Your task to perform on an android device: delete a single message in the gmail app Image 0: 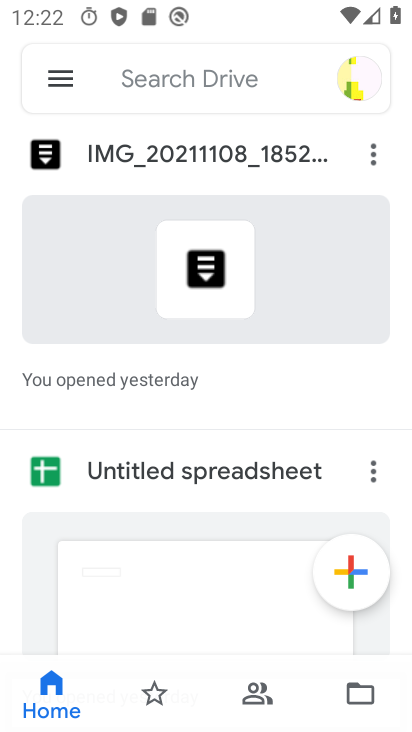
Step 0: press home button
Your task to perform on an android device: delete a single message in the gmail app Image 1: 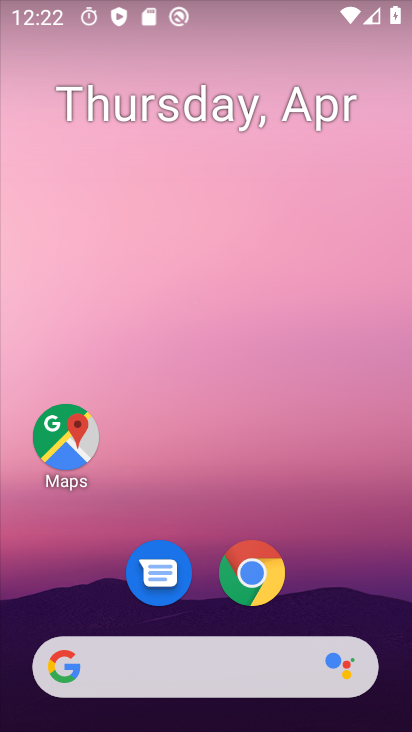
Step 1: drag from (366, 351) to (354, 234)
Your task to perform on an android device: delete a single message in the gmail app Image 2: 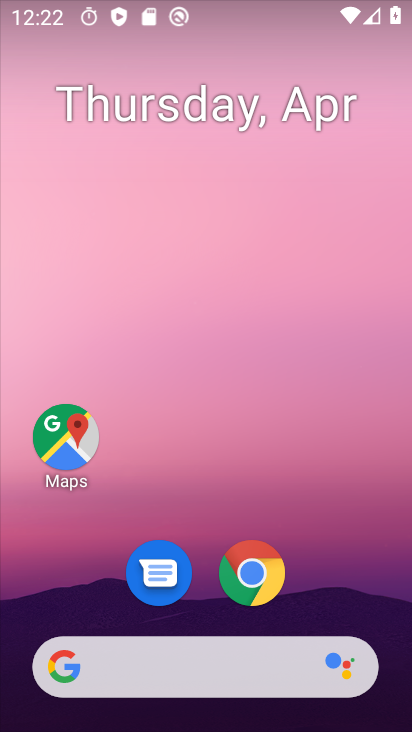
Step 2: click (365, 173)
Your task to perform on an android device: delete a single message in the gmail app Image 3: 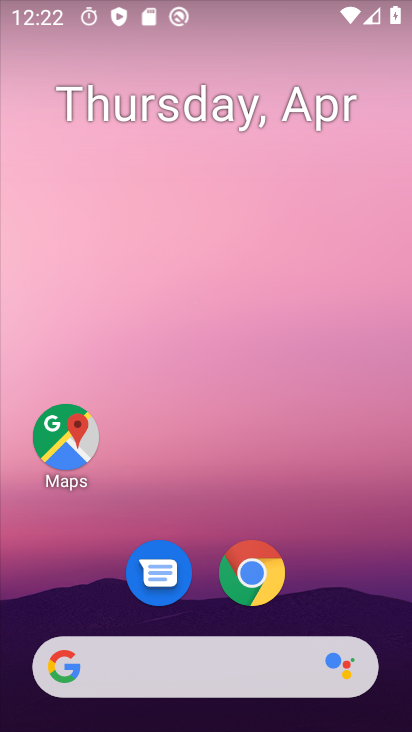
Step 3: drag from (368, 281) to (362, 143)
Your task to perform on an android device: delete a single message in the gmail app Image 4: 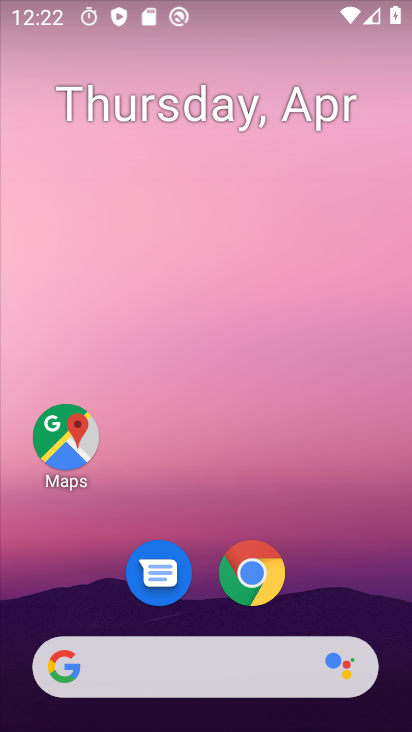
Step 4: drag from (368, 236) to (370, 165)
Your task to perform on an android device: delete a single message in the gmail app Image 5: 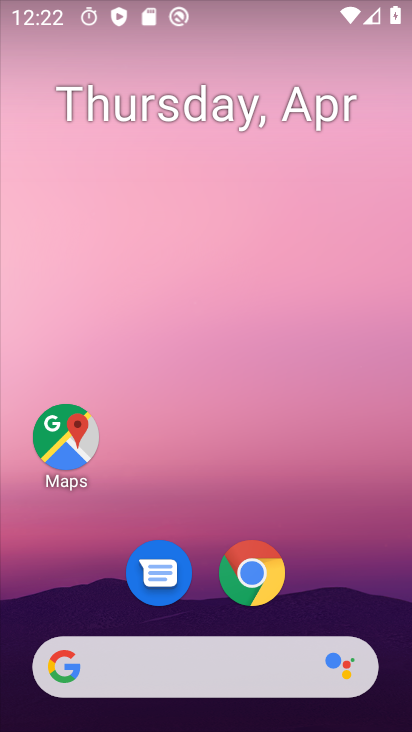
Step 5: drag from (373, 496) to (360, 151)
Your task to perform on an android device: delete a single message in the gmail app Image 6: 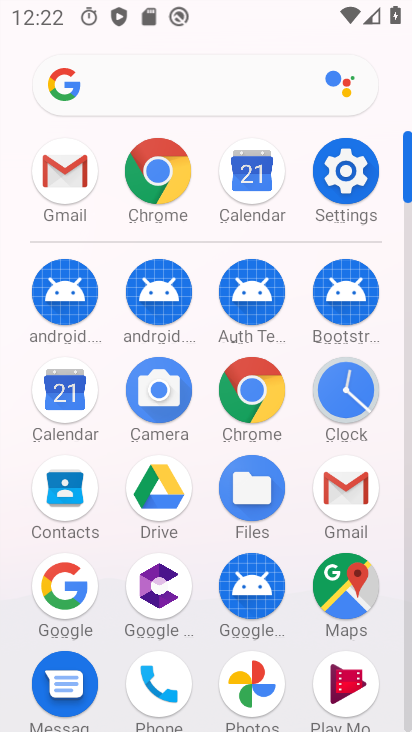
Step 6: click (335, 493)
Your task to perform on an android device: delete a single message in the gmail app Image 7: 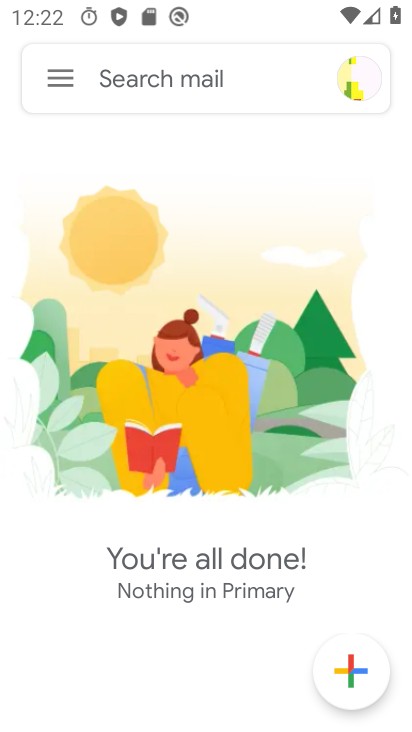
Step 7: click (52, 72)
Your task to perform on an android device: delete a single message in the gmail app Image 8: 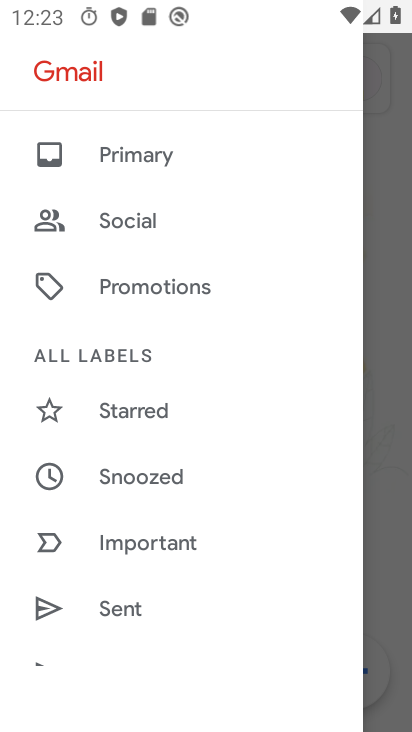
Step 8: click (104, 147)
Your task to perform on an android device: delete a single message in the gmail app Image 9: 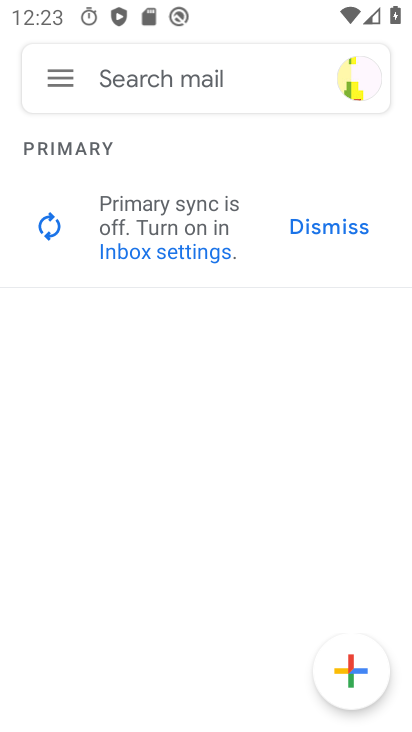
Step 9: task complete